Your task to perform on an android device: open app "Nova Launcher" (install if not already installed), go to login, and select forgot password Image 0: 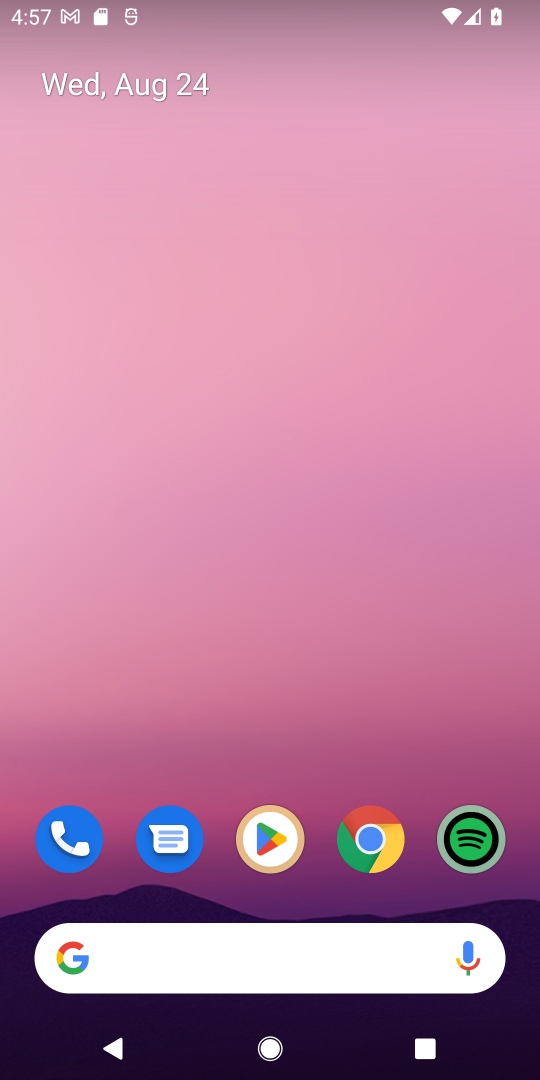
Step 0: click (280, 843)
Your task to perform on an android device: open app "Nova Launcher" (install if not already installed), go to login, and select forgot password Image 1: 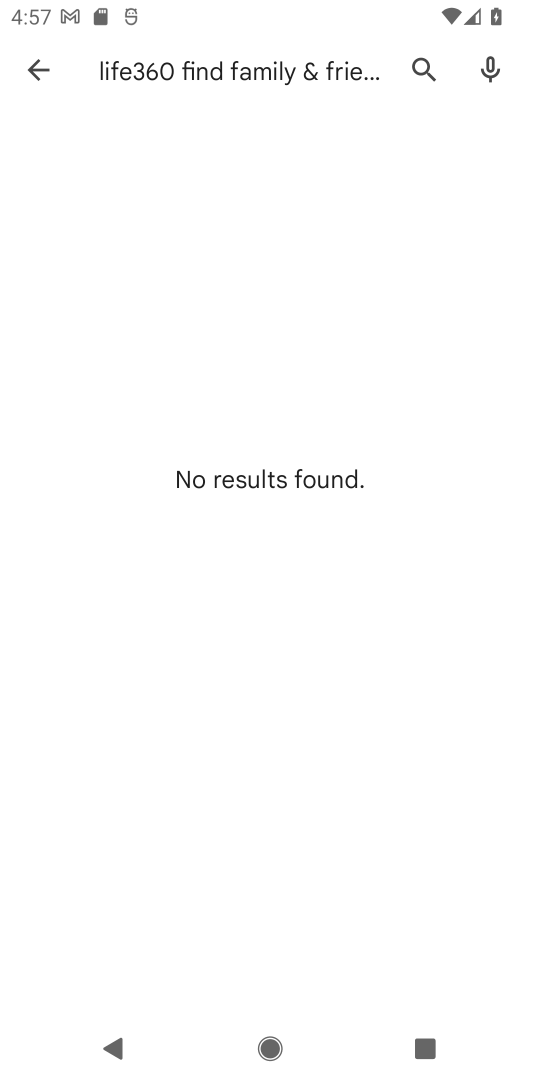
Step 1: click (422, 63)
Your task to perform on an android device: open app "Nova Launcher" (install if not already installed), go to login, and select forgot password Image 2: 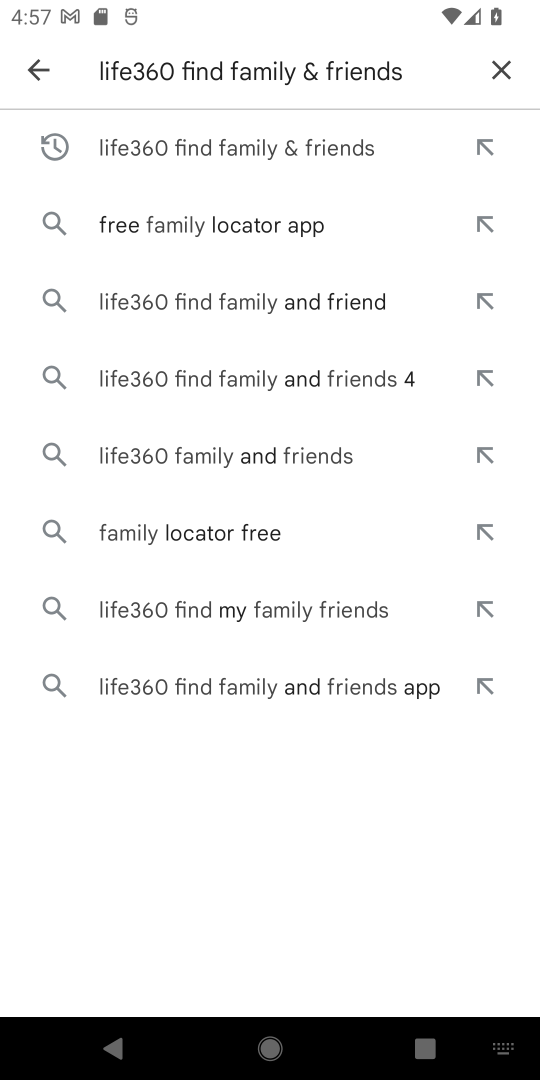
Step 2: click (499, 57)
Your task to perform on an android device: open app "Nova Launcher" (install if not already installed), go to login, and select forgot password Image 3: 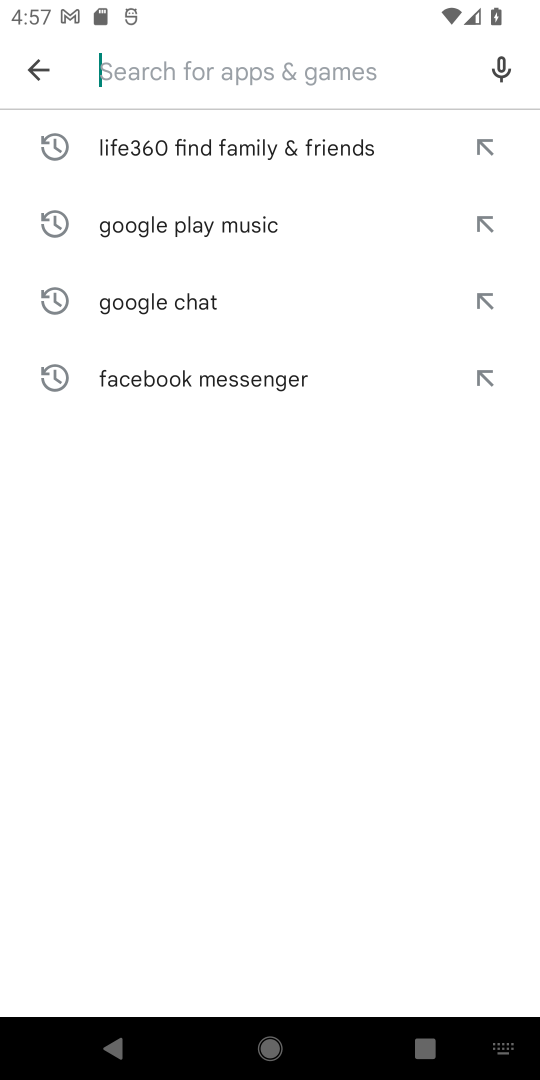
Step 3: type "Nova Launcher"
Your task to perform on an android device: open app "Nova Launcher" (install if not already installed), go to login, and select forgot password Image 4: 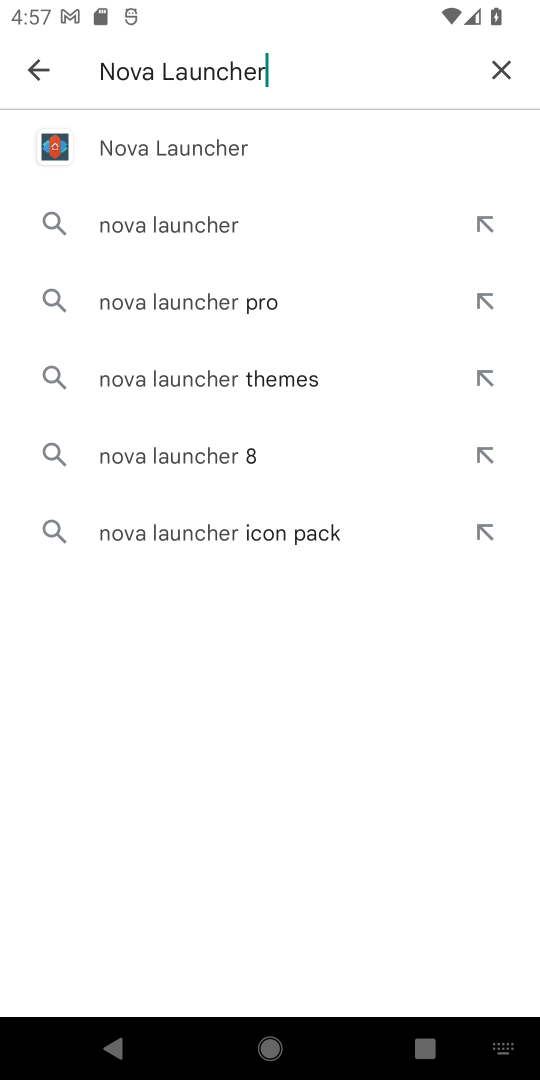
Step 4: click (194, 146)
Your task to perform on an android device: open app "Nova Launcher" (install if not already installed), go to login, and select forgot password Image 5: 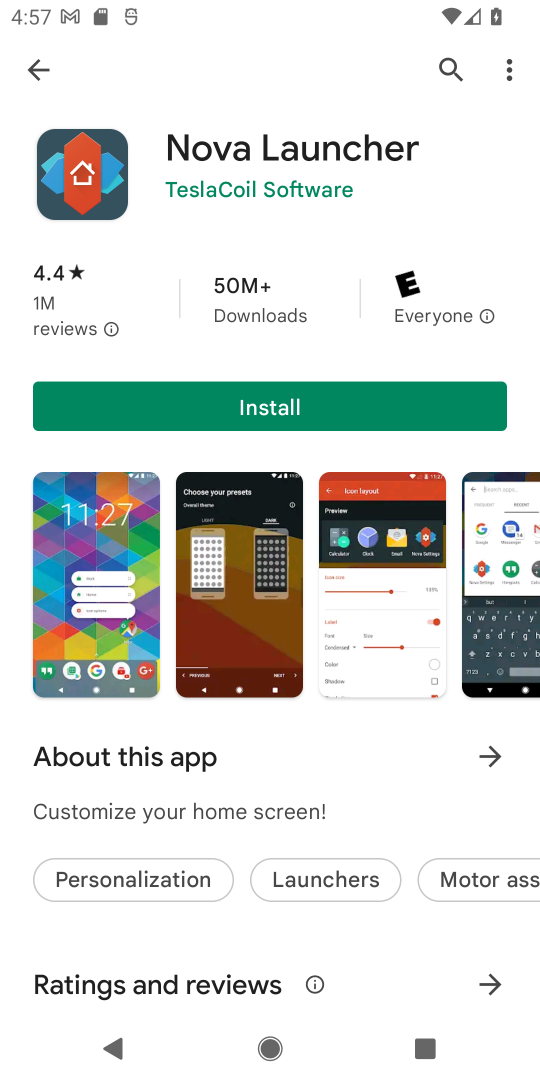
Step 5: click (273, 408)
Your task to perform on an android device: open app "Nova Launcher" (install if not already installed), go to login, and select forgot password Image 6: 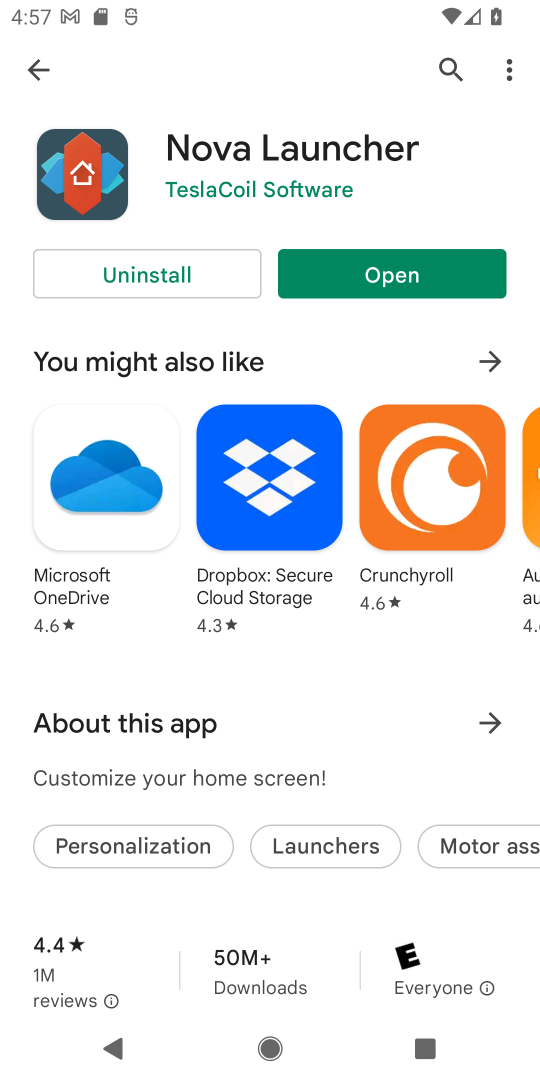
Step 6: click (408, 268)
Your task to perform on an android device: open app "Nova Launcher" (install if not already installed), go to login, and select forgot password Image 7: 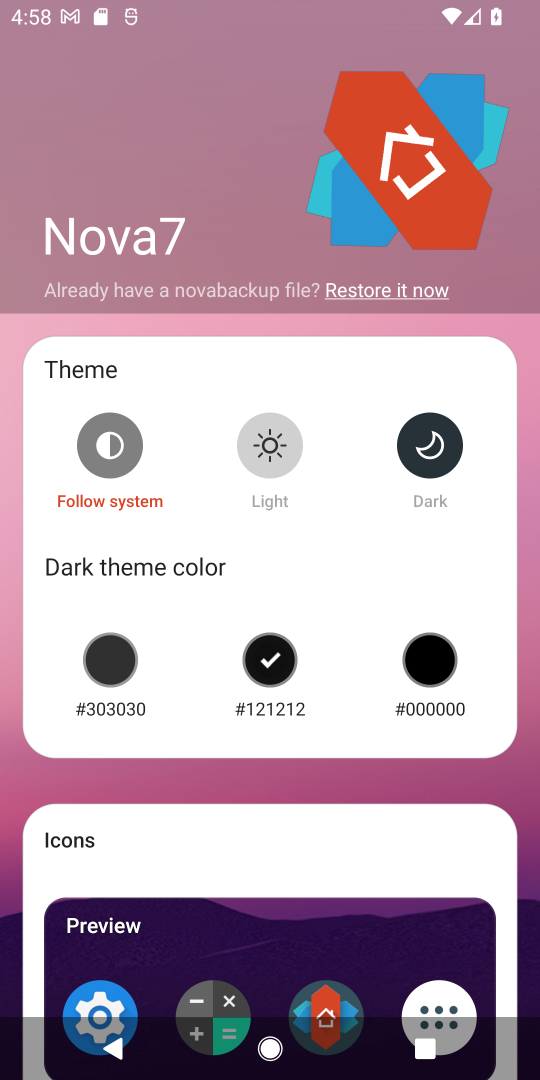
Step 7: task complete